Your task to perform on an android device: toggle wifi Image 0: 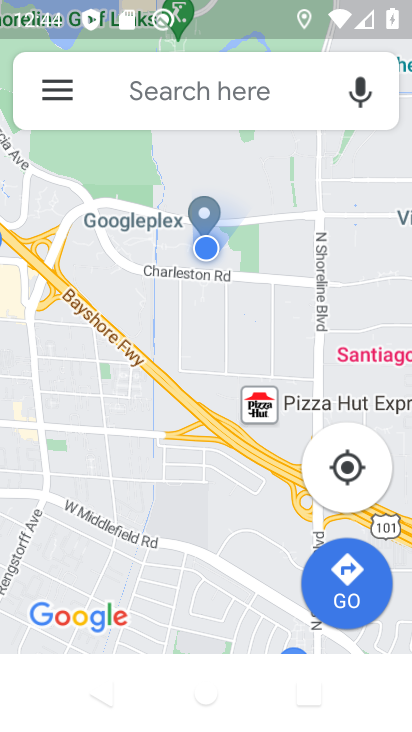
Step 0: press home button
Your task to perform on an android device: toggle wifi Image 1: 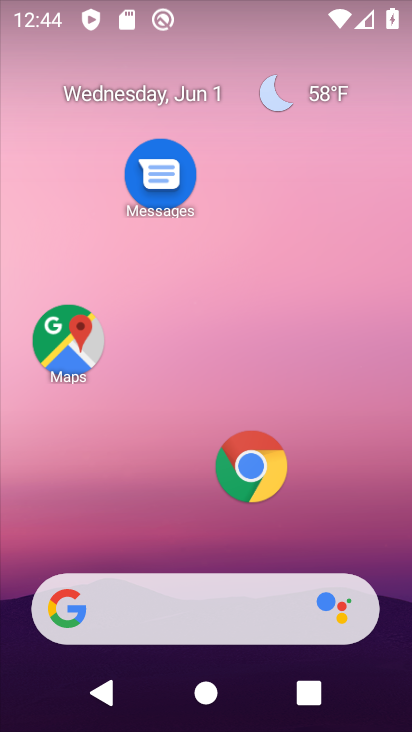
Step 1: drag from (253, 19) to (206, 384)
Your task to perform on an android device: toggle wifi Image 2: 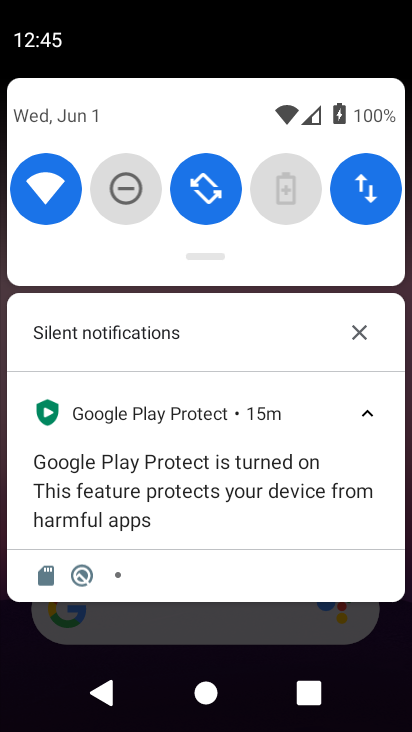
Step 2: click (28, 188)
Your task to perform on an android device: toggle wifi Image 3: 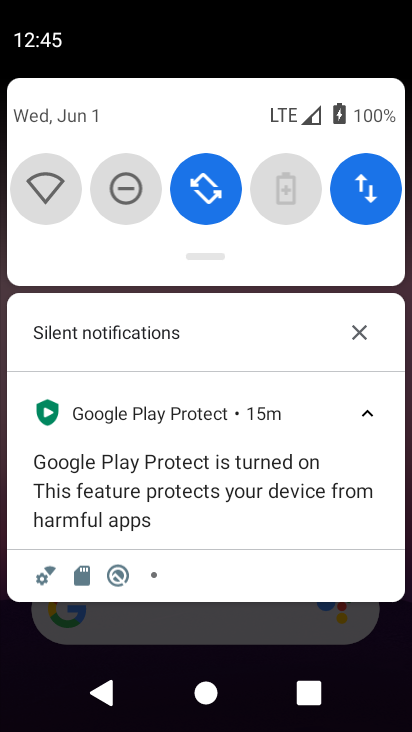
Step 3: task complete